Your task to perform on an android device: turn on bluetooth scan Image 0: 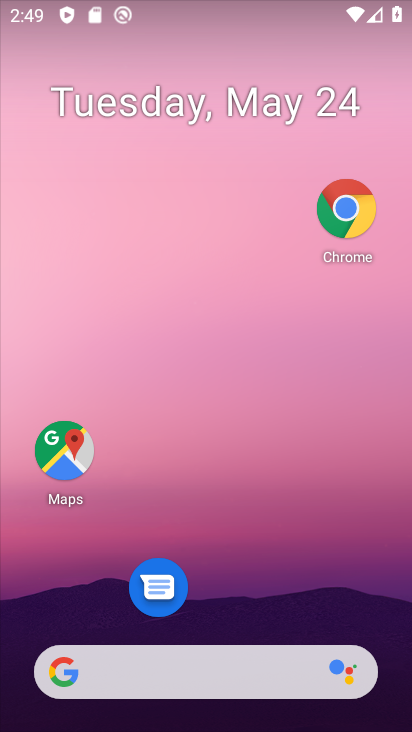
Step 0: drag from (190, 633) to (256, 250)
Your task to perform on an android device: turn on bluetooth scan Image 1: 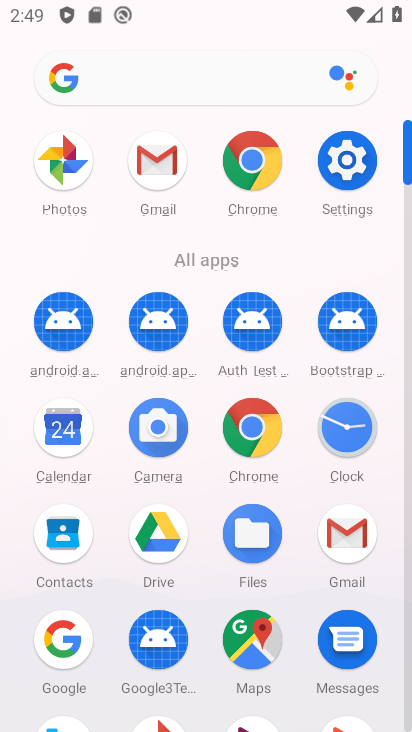
Step 1: click (346, 156)
Your task to perform on an android device: turn on bluetooth scan Image 2: 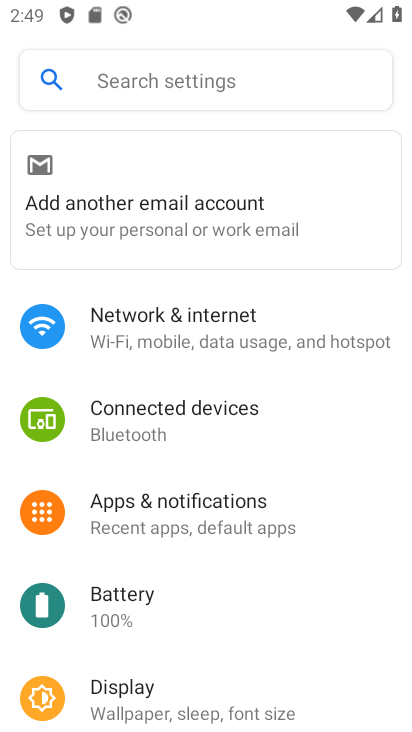
Step 2: drag from (134, 669) to (222, 278)
Your task to perform on an android device: turn on bluetooth scan Image 3: 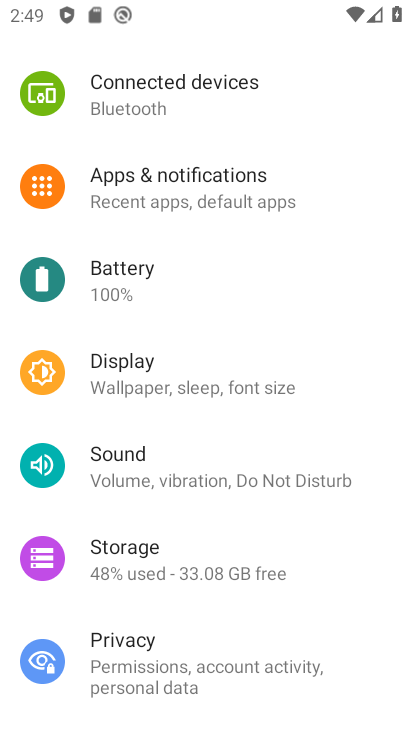
Step 3: drag from (181, 651) to (250, 331)
Your task to perform on an android device: turn on bluetooth scan Image 4: 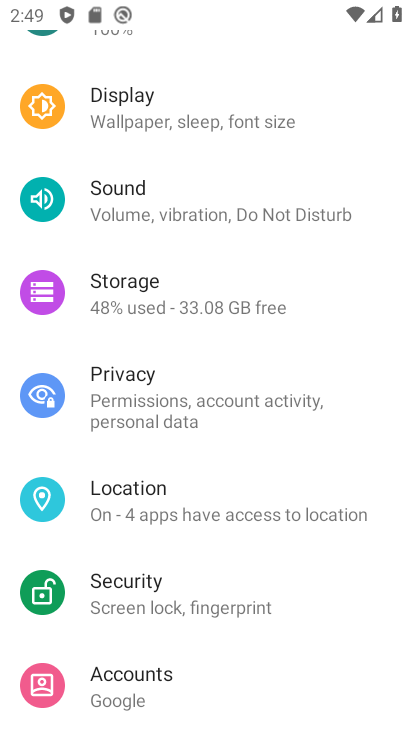
Step 4: click (188, 500)
Your task to perform on an android device: turn on bluetooth scan Image 5: 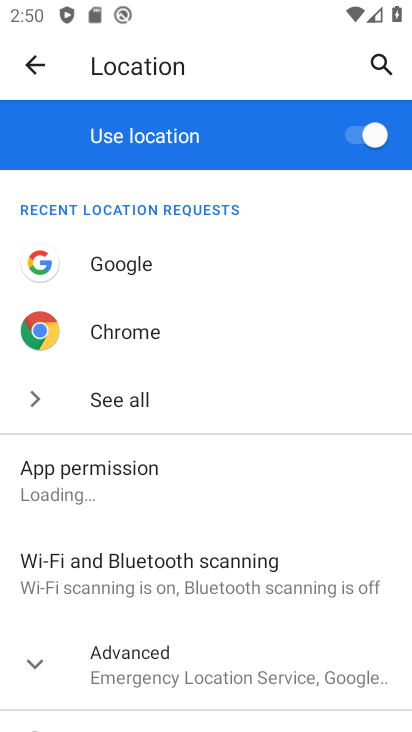
Step 5: drag from (176, 600) to (237, 342)
Your task to perform on an android device: turn on bluetooth scan Image 6: 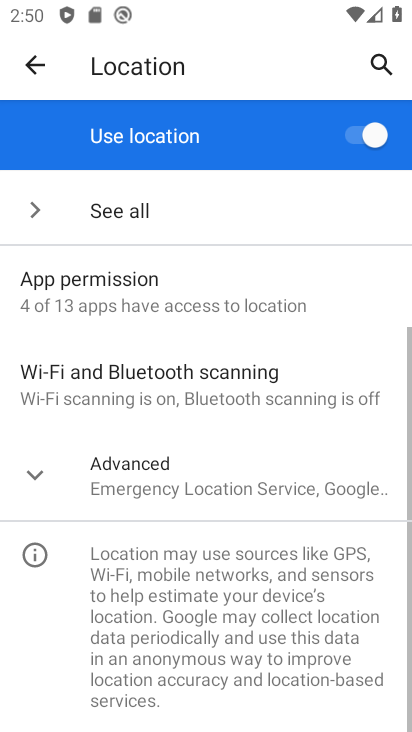
Step 6: click (188, 393)
Your task to perform on an android device: turn on bluetooth scan Image 7: 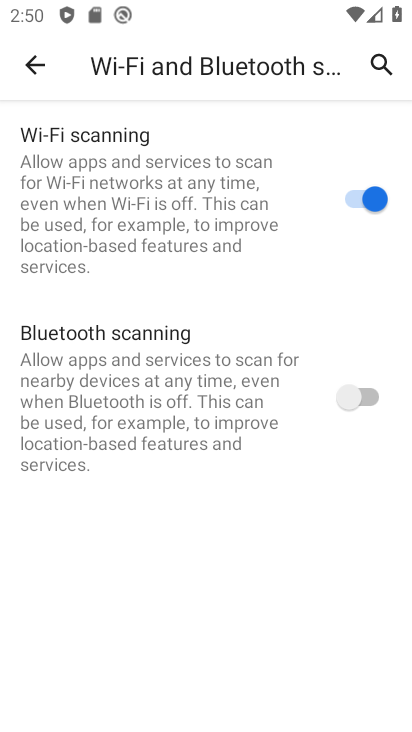
Step 7: click (359, 400)
Your task to perform on an android device: turn on bluetooth scan Image 8: 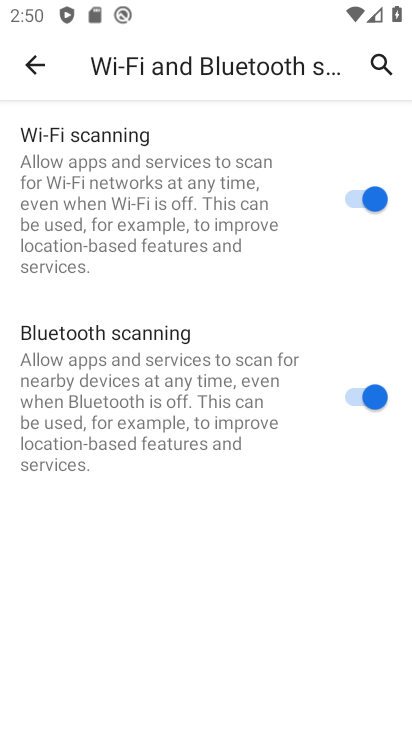
Step 8: task complete